Your task to perform on an android device: empty trash in the gmail app Image 0: 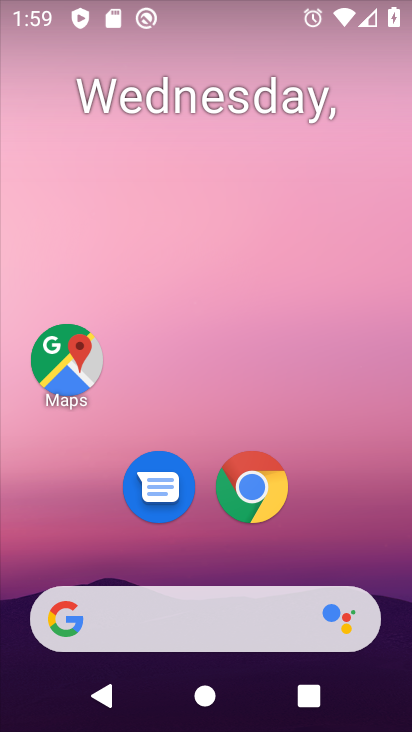
Step 0: drag from (391, 601) to (237, 97)
Your task to perform on an android device: empty trash in the gmail app Image 1: 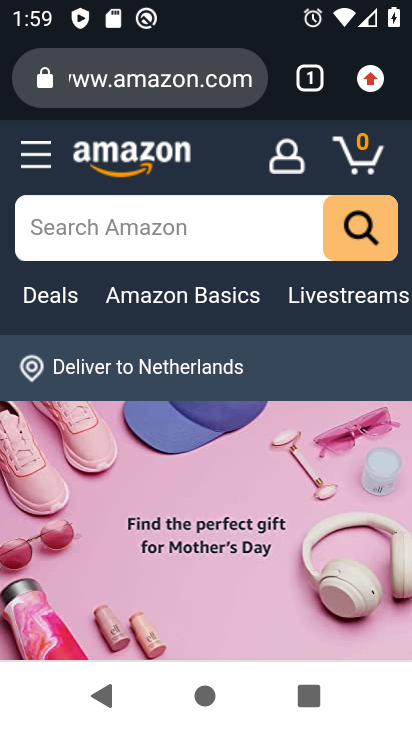
Step 1: press home button
Your task to perform on an android device: empty trash in the gmail app Image 2: 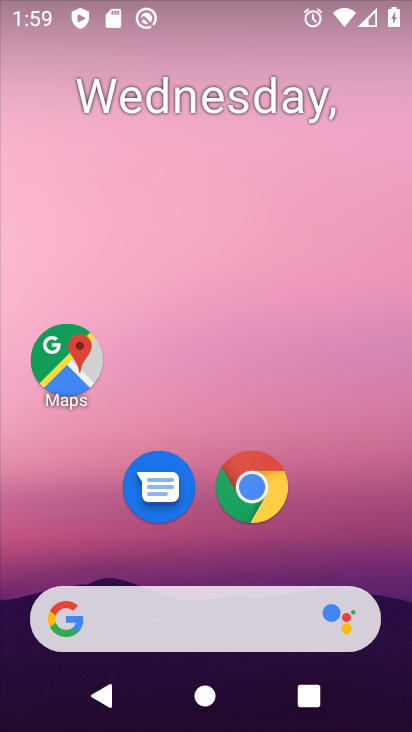
Step 2: drag from (394, 617) to (270, 59)
Your task to perform on an android device: empty trash in the gmail app Image 3: 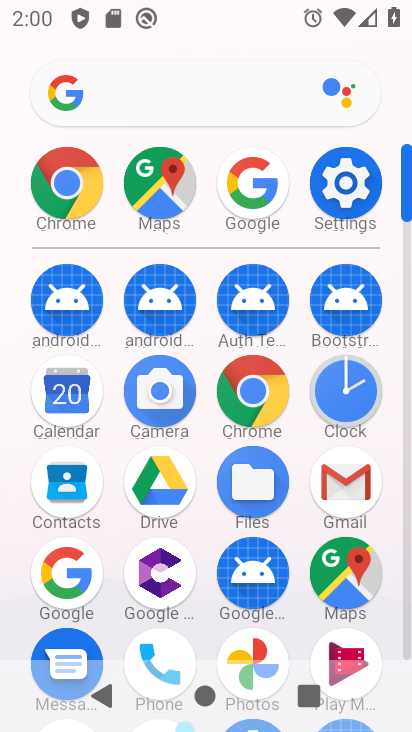
Step 3: click (341, 494)
Your task to perform on an android device: empty trash in the gmail app Image 4: 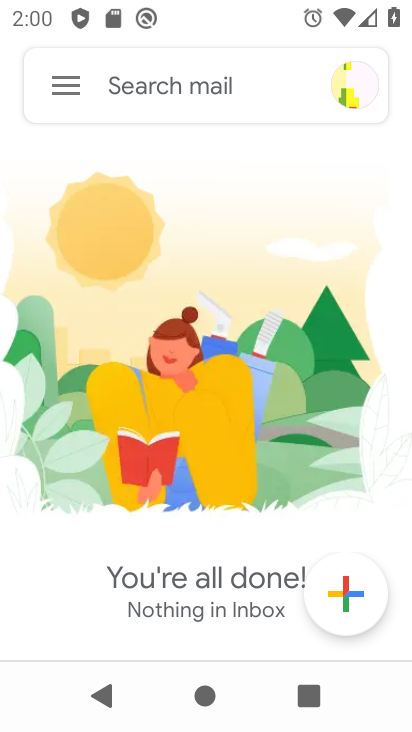
Step 4: click (60, 98)
Your task to perform on an android device: empty trash in the gmail app Image 5: 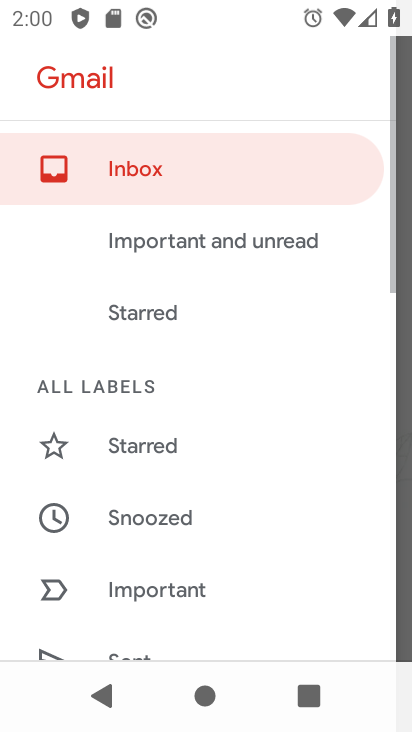
Step 5: drag from (161, 571) to (217, 170)
Your task to perform on an android device: empty trash in the gmail app Image 6: 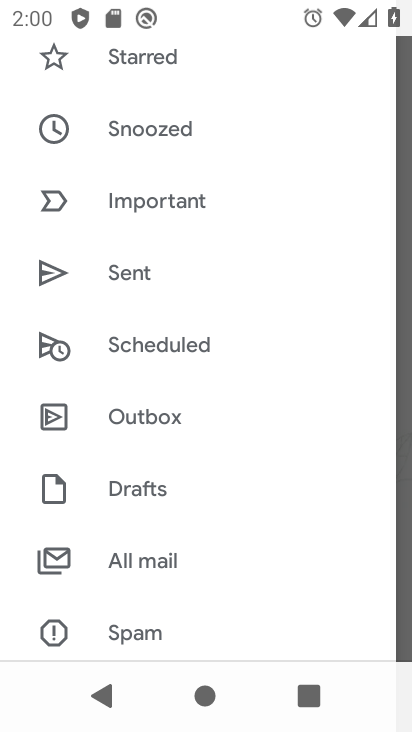
Step 6: drag from (173, 623) to (243, 191)
Your task to perform on an android device: empty trash in the gmail app Image 7: 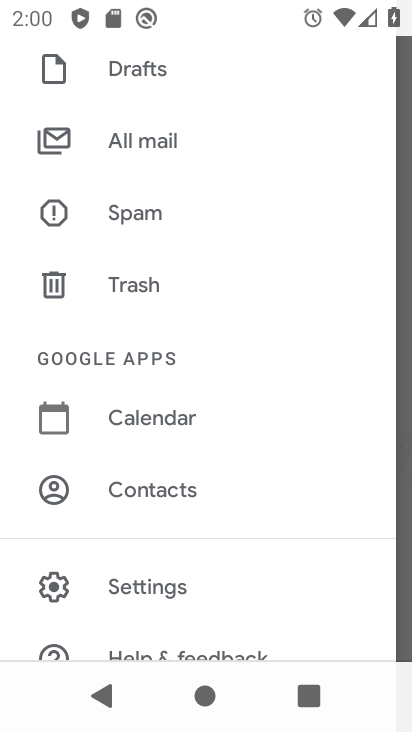
Step 7: click (206, 288)
Your task to perform on an android device: empty trash in the gmail app Image 8: 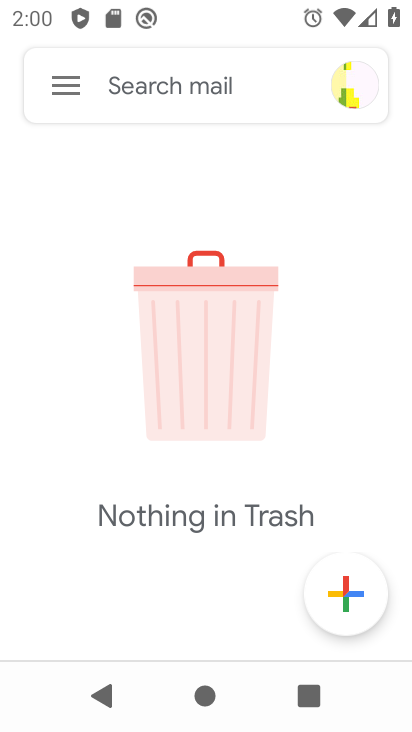
Step 8: task complete